Your task to perform on an android device: What's on my calendar today? Image 0: 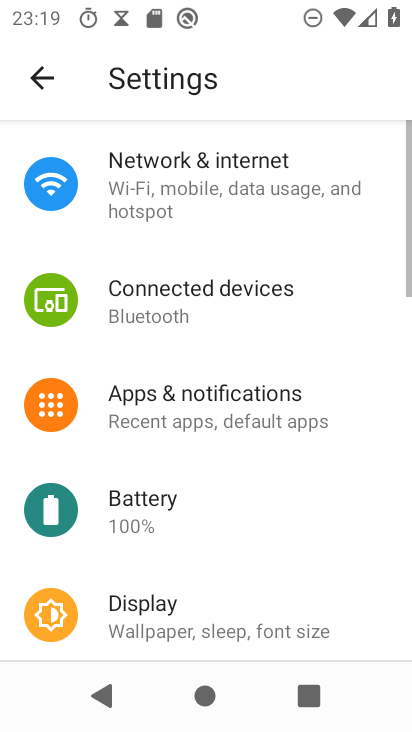
Step 0: press home button
Your task to perform on an android device: What's on my calendar today? Image 1: 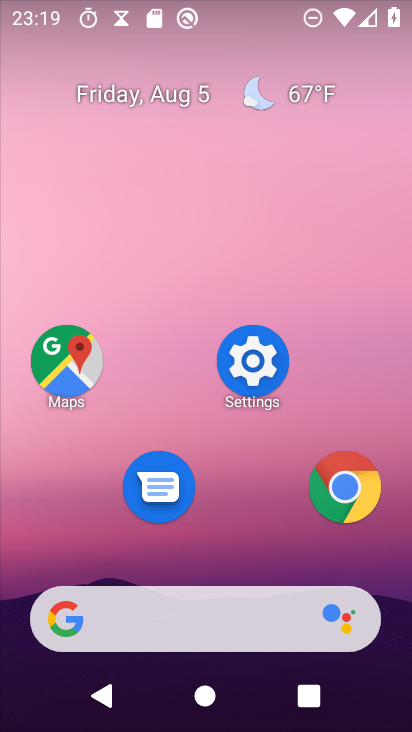
Step 1: drag from (197, 611) to (304, 118)
Your task to perform on an android device: What's on my calendar today? Image 2: 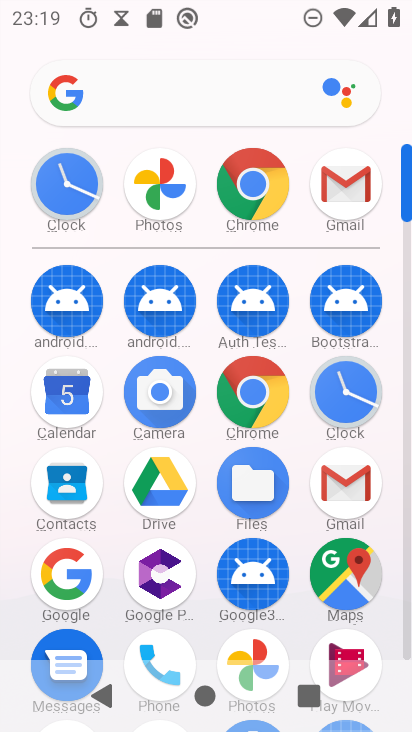
Step 2: click (56, 402)
Your task to perform on an android device: What's on my calendar today? Image 3: 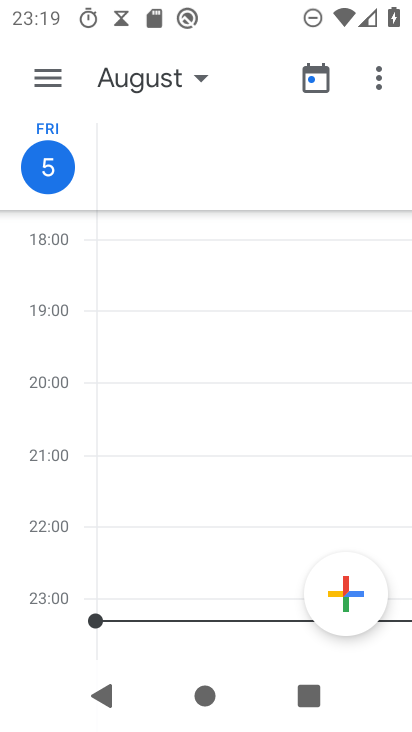
Step 3: click (128, 75)
Your task to perform on an android device: What's on my calendar today? Image 4: 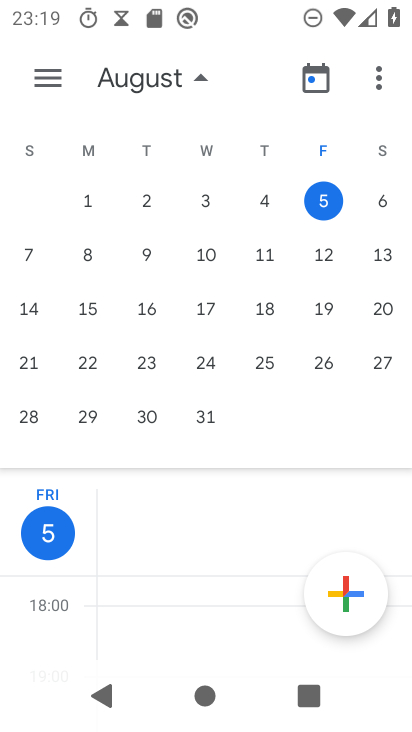
Step 4: click (323, 209)
Your task to perform on an android device: What's on my calendar today? Image 5: 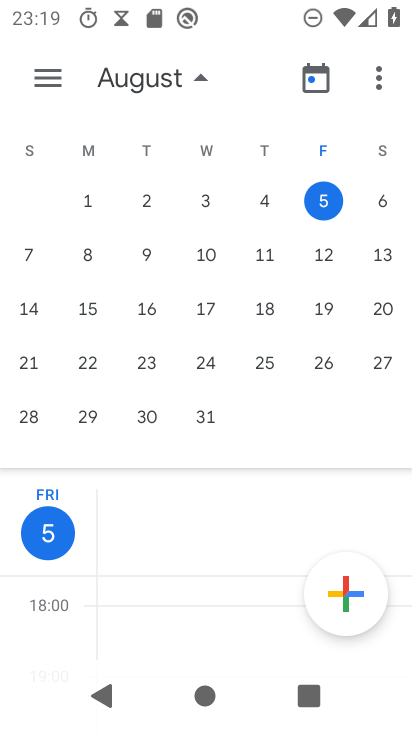
Step 5: click (45, 78)
Your task to perform on an android device: What's on my calendar today? Image 6: 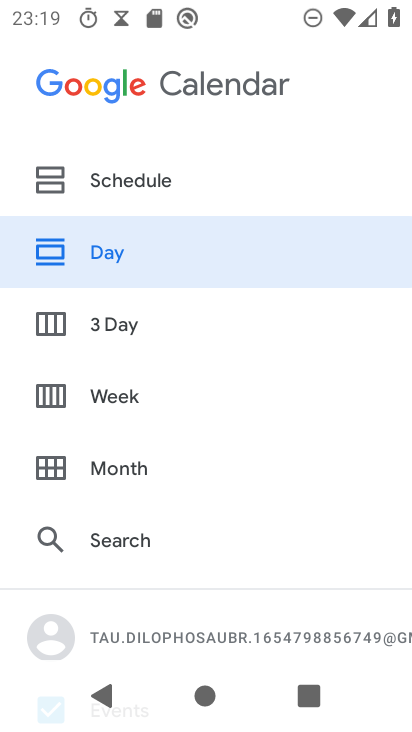
Step 6: click (133, 187)
Your task to perform on an android device: What's on my calendar today? Image 7: 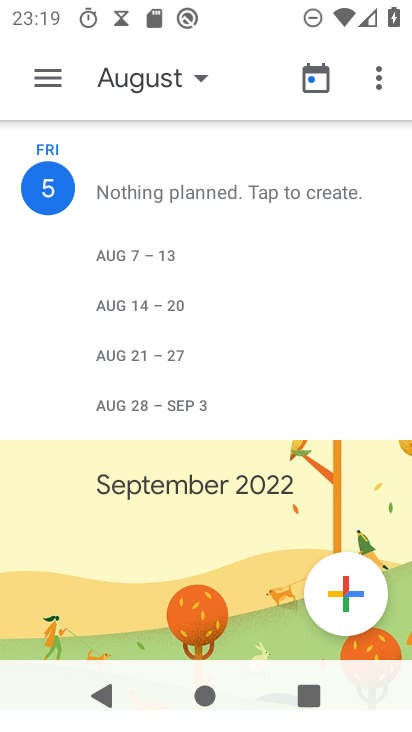
Step 7: task complete